Your task to perform on an android device: Go to settings Image 0: 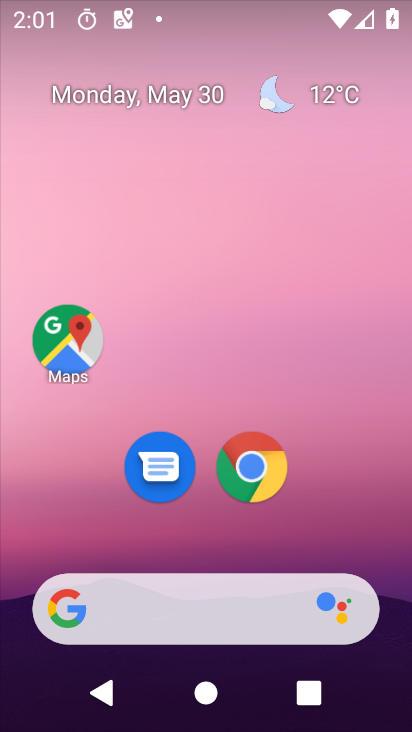
Step 0: drag from (410, 704) to (401, 292)
Your task to perform on an android device: Go to settings Image 1: 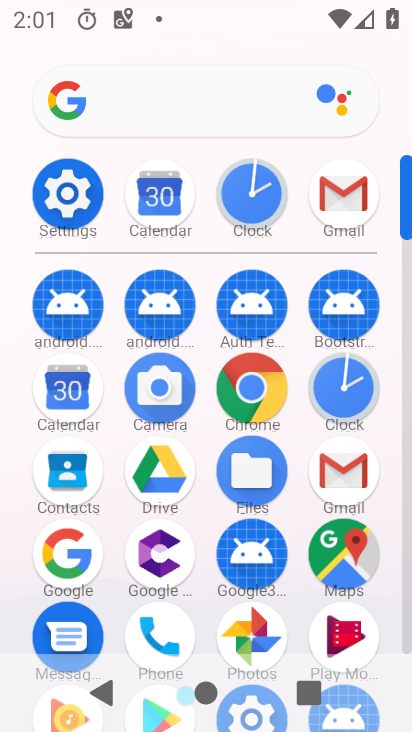
Step 1: click (70, 194)
Your task to perform on an android device: Go to settings Image 2: 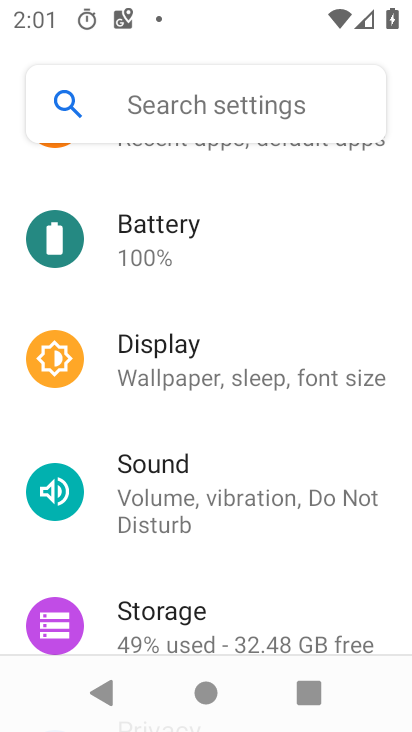
Step 2: task complete